Your task to perform on an android device: delete browsing data in the chrome app Image 0: 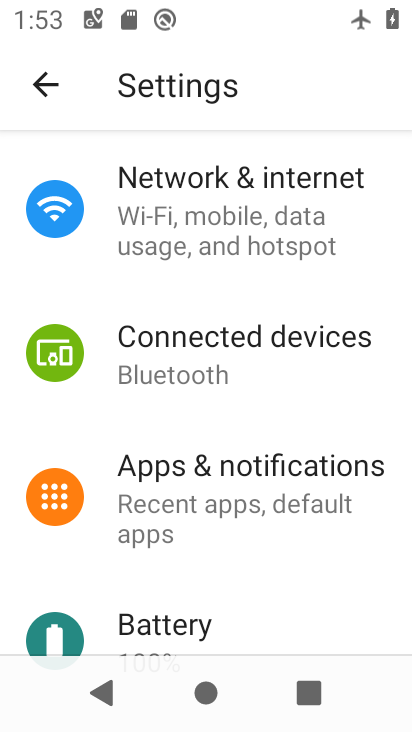
Step 0: press home button
Your task to perform on an android device: delete browsing data in the chrome app Image 1: 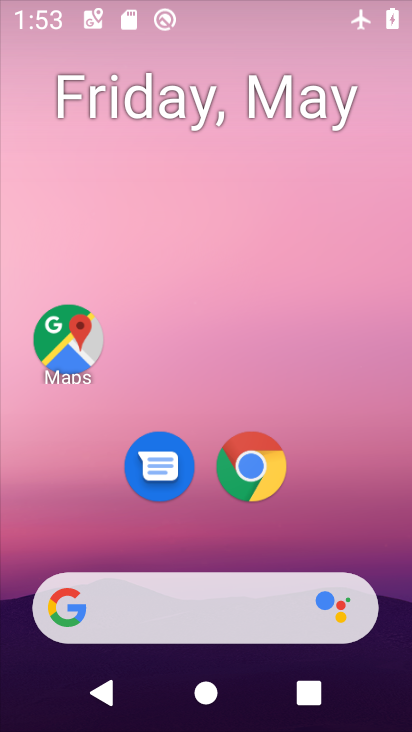
Step 1: drag from (377, 575) to (378, 76)
Your task to perform on an android device: delete browsing data in the chrome app Image 2: 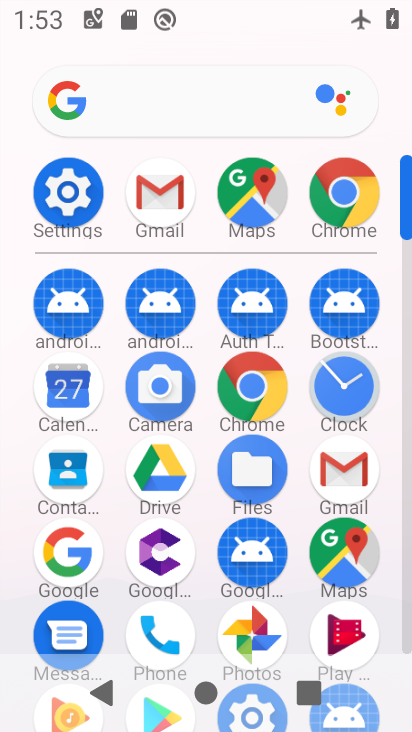
Step 2: click (348, 196)
Your task to perform on an android device: delete browsing data in the chrome app Image 3: 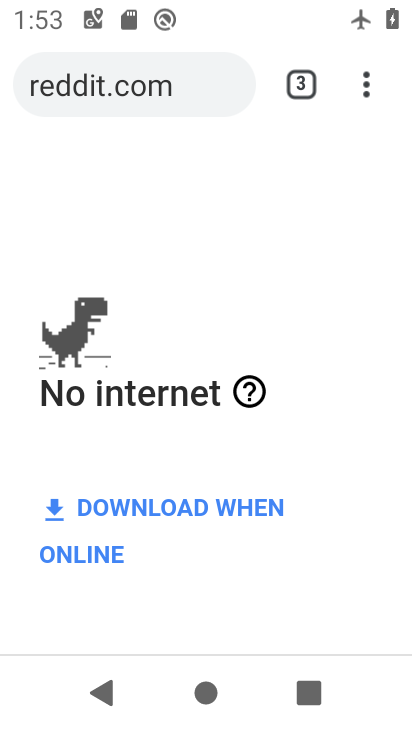
Step 3: press home button
Your task to perform on an android device: delete browsing data in the chrome app Image 4: 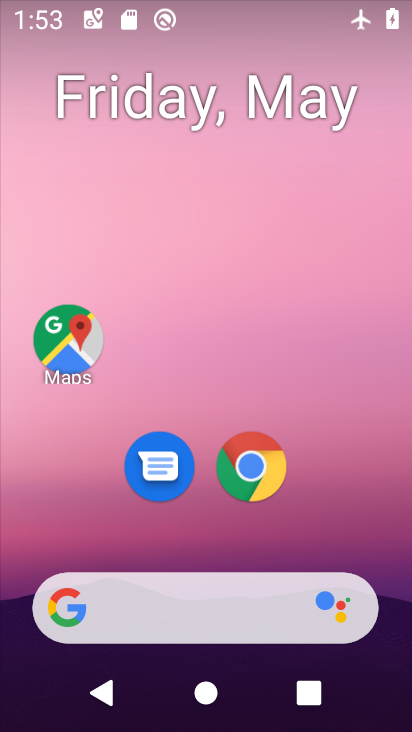
Step 4: drag from (360, 535) to (358, 122)
Your task to perform on an android device: delete browsing data in the chrome app Image 5: 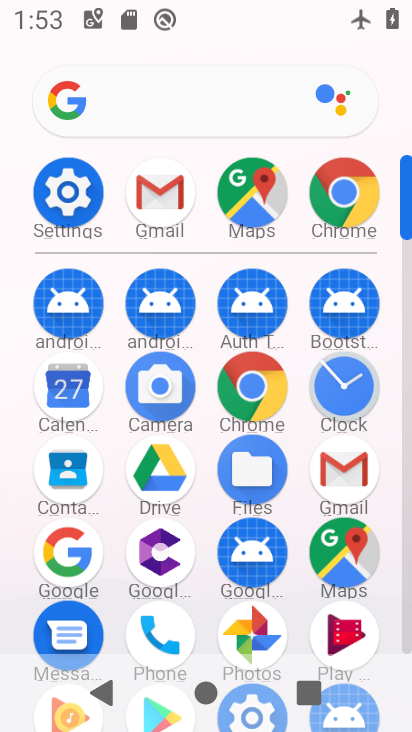
Step 5: click (59, 202)
Your task to perform on an android device: delete browsing data in the chrome app Image 6: 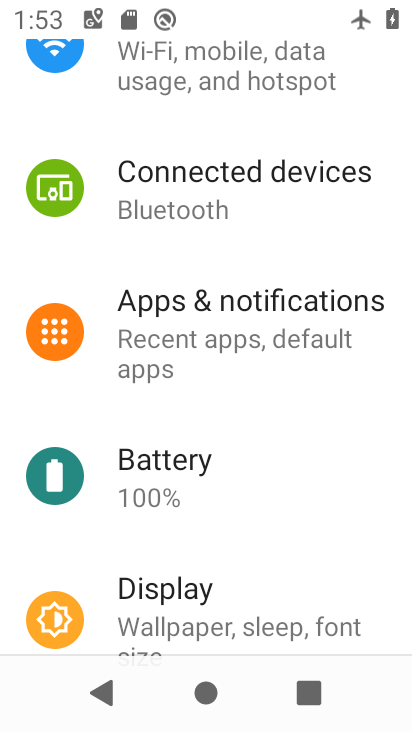
Step 6: drag from (148, 145) to (176, 600)
Your task to perform on an android device: delete browsing data in the chrome app Image 7: 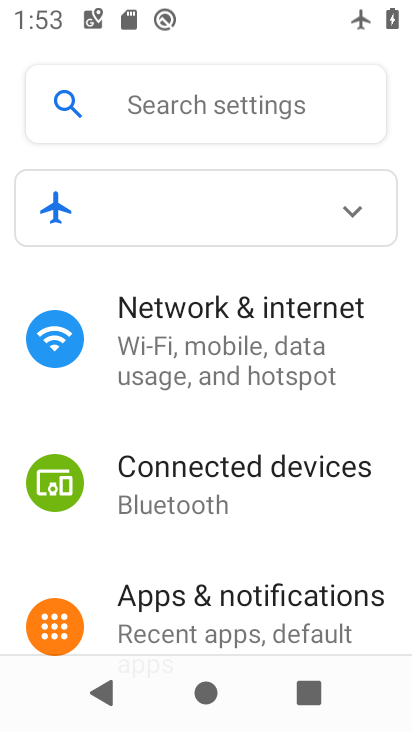
Step 7: drag from (265, 315) to (250, 565)
Your task to perform on an android device: delete browsing data in the chrome app Image 8: 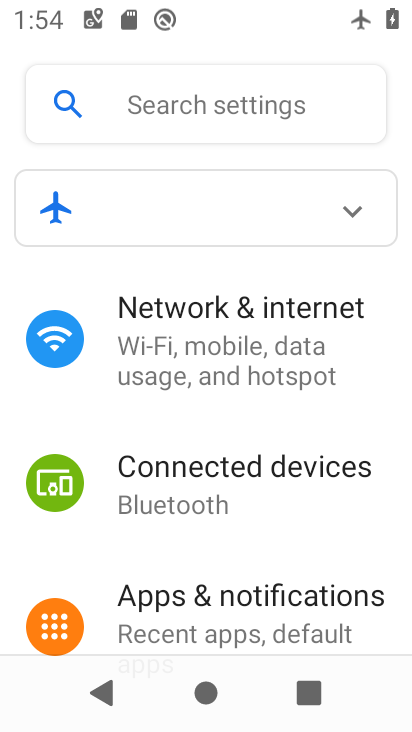
Step 8: click (211, 345)
Your task to perform on an android device: delete browsing data in the chrome app Image 9: 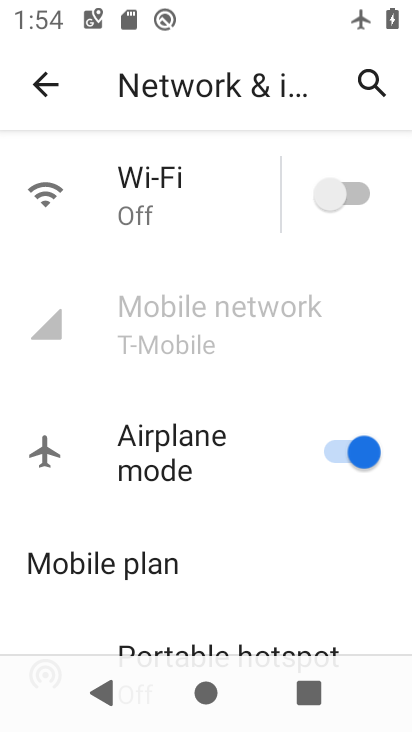
Step 9: click (322, 457)
Your task to perform on an android device: delete browsing data in the chrome app Image 10: 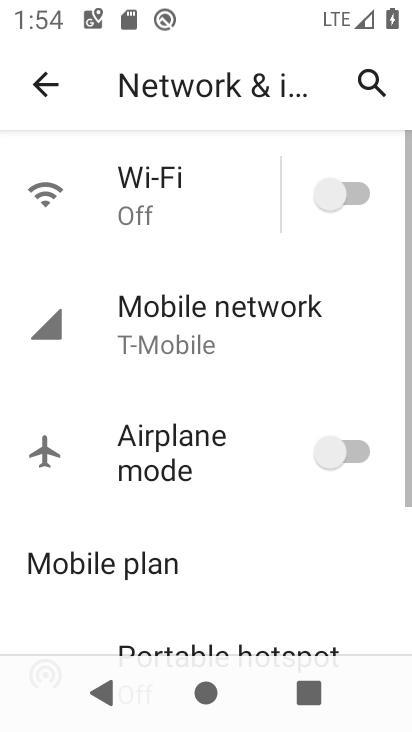
Step 10: click (316, 200)
Your task to perform on an android device: delete browsing data in the chrome app Image 11: 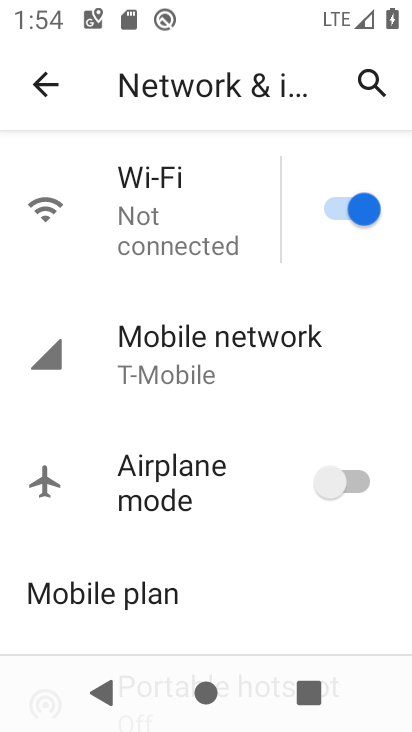
Step 11: task complete